Your task to perform on an android device: check battery use Image 0: 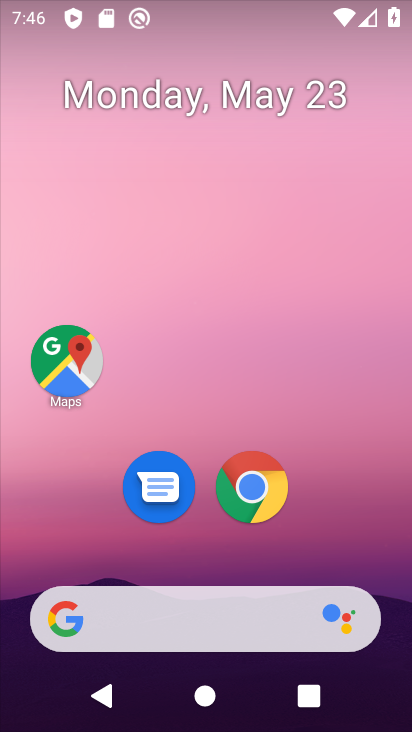
Step 0: drag from (329, 487) to (234, 30)
Your task to perform on an android device: check battery use Image 1: 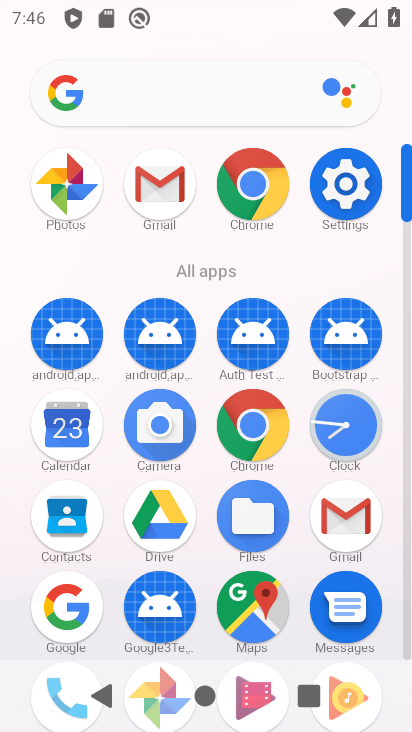
Step 1: click (347, 183)
Your task to perform on an android device: check battery use Image 2: 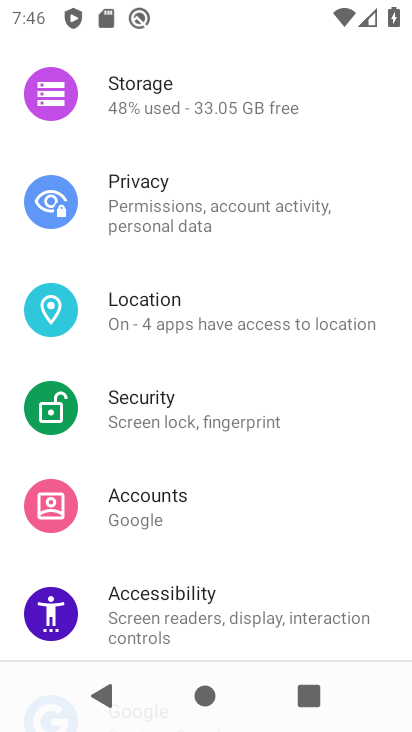
Step 2: drag from (270, 529) to (280, 121)
Your task to perform on an android device: check battery use Image 3: 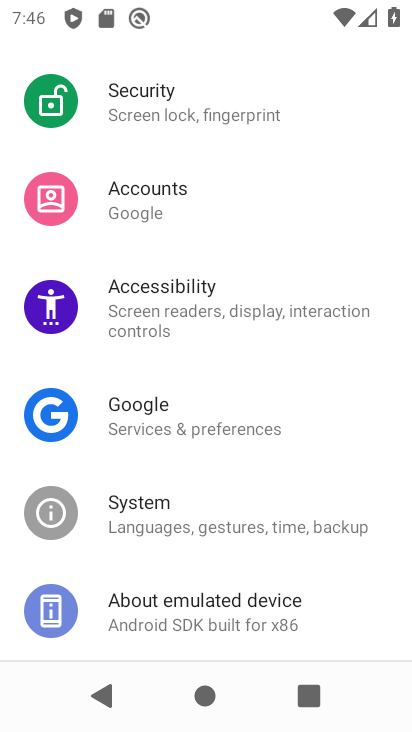
Step 3: drag from (218, 516) to (226, 200)
Your task to perform on an android device: check battery use Image 4: 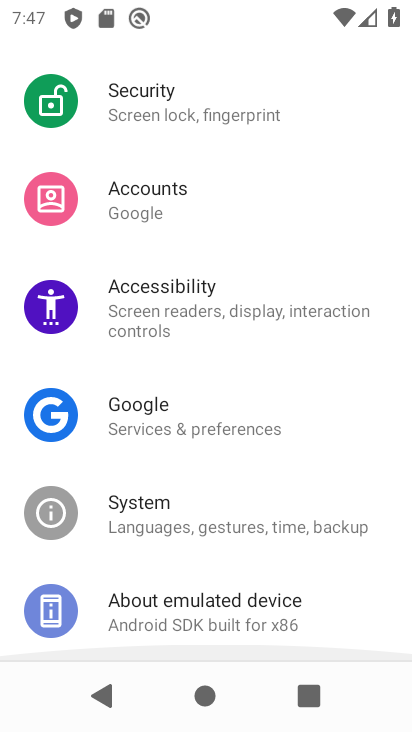
Step 4: drag from (229, 155) to (211, 502)
Your task to perform on an android device: check battery use Image 5: 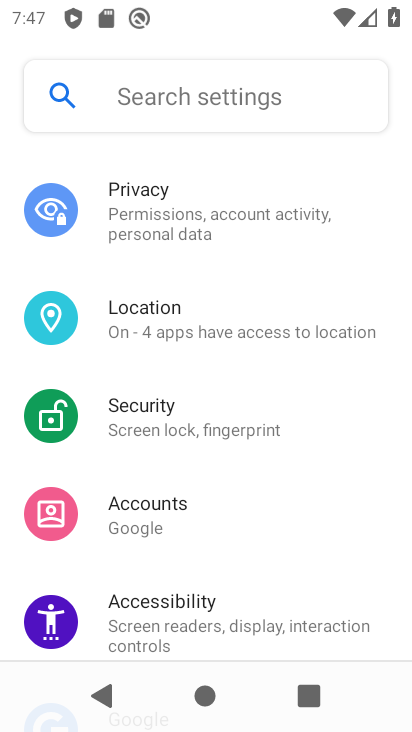
Step 5: drag from (211, 273) to (215, 583)
Your task to perform on an android device: check battery use Image 6: 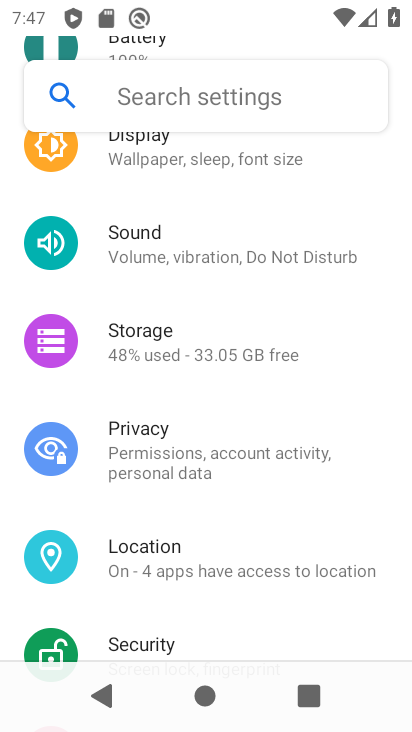
Step 6: drag from (216, 244) to (212, 587)
Your task to perform on an android device: check battery use Image 7: 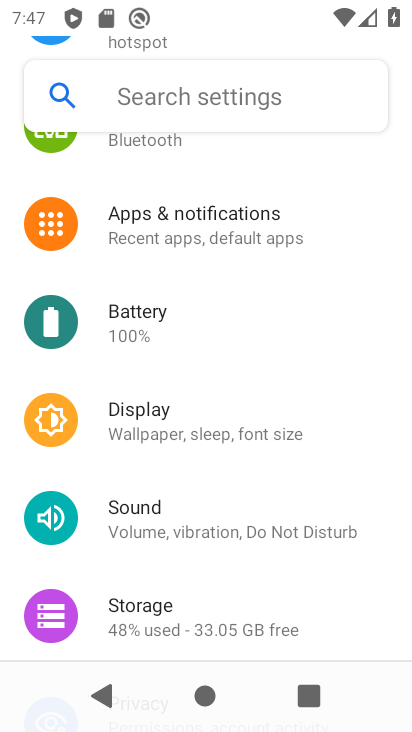
Step 7: drag from (259, 255) to (218, 603)
Your task to perform on an android device: check battery use Image 8: 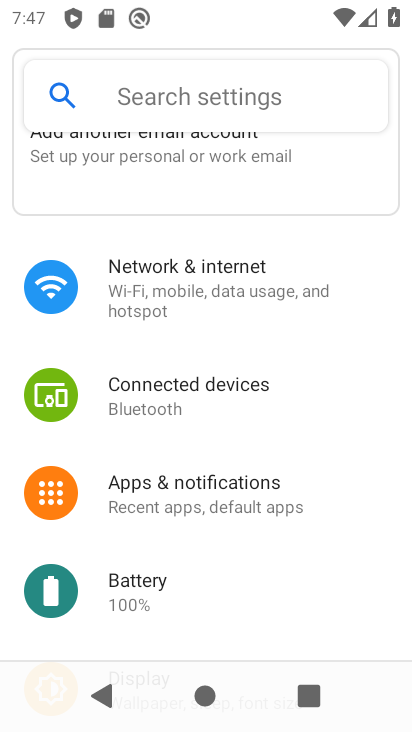
Step 8: click (184, 582)
Your task to perform on an android device: check battery use Image 9: 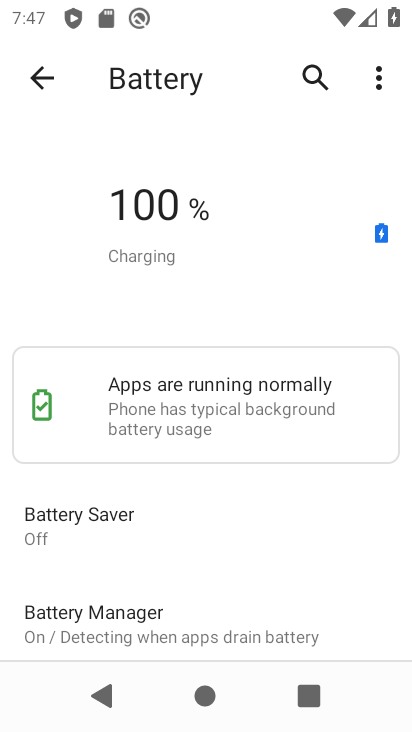
Step 9: task complete